Your task to perform on an android device: Go to eBay Image 0: 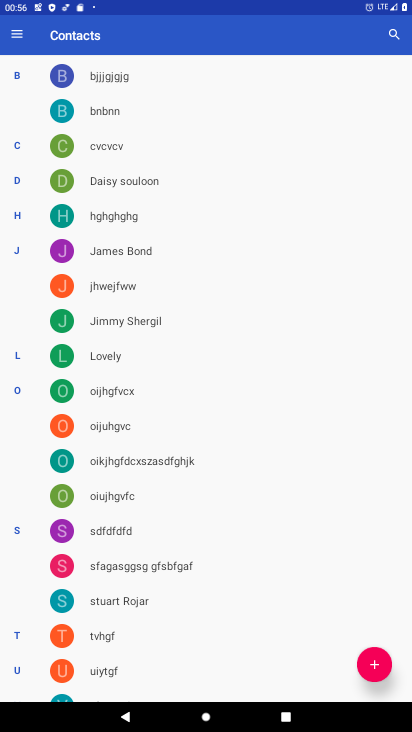
Step 0: press home button
Your task to perform on an android device: Go to eBay Image 1: 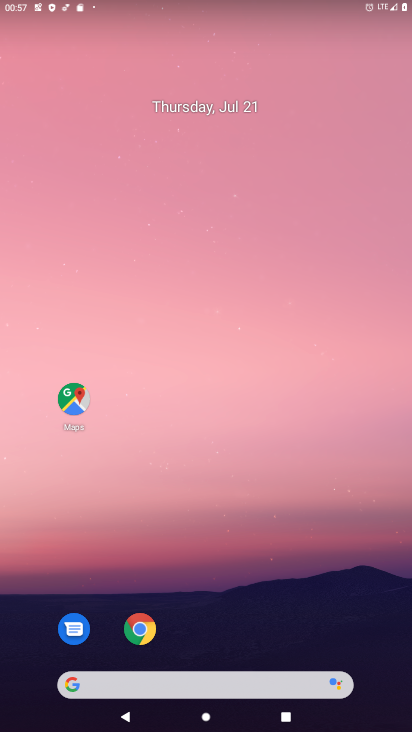
Step 1: drag from (280, 597) to (302, 54)
Your task to perform on an android device: Go to eBay Image 2: 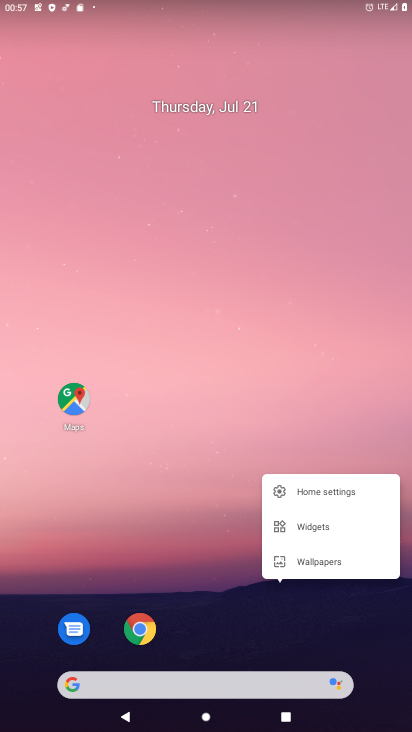
Step 2: click (256, 421)
Your task to perform on an android device: Go to eBay Image 3: 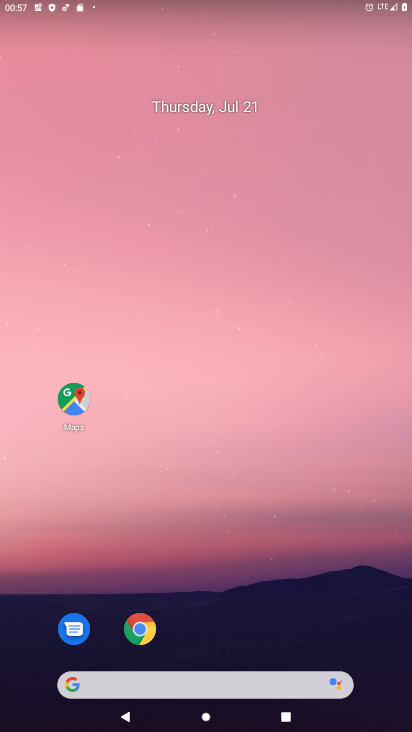
Step 3: click (302, 36)
Your task to perform on an android device: Go to eBay Image 4: 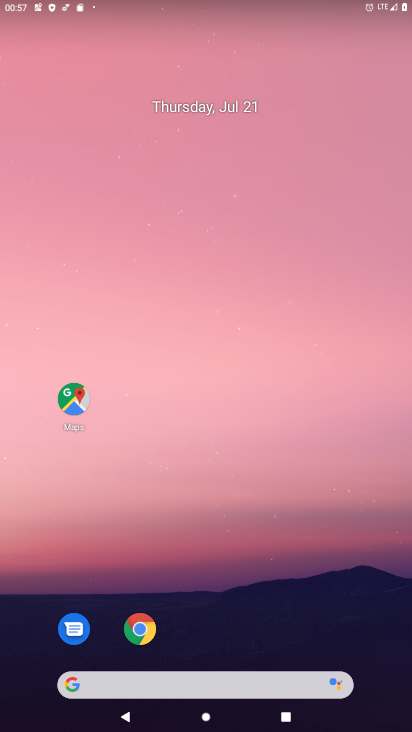
Step 4: drag from (223, 374) to (211, 32)
Your task to perform on an android device: Go to eBay Image 5: 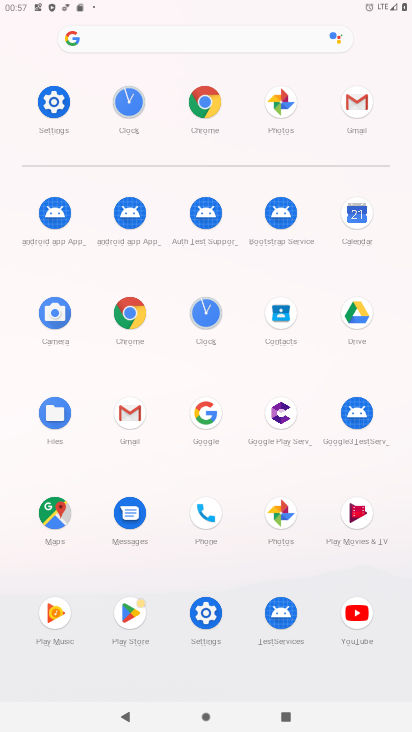
Step 5: click (202, 100)
Your task to perform on an android device: Go to eBay Image 6: 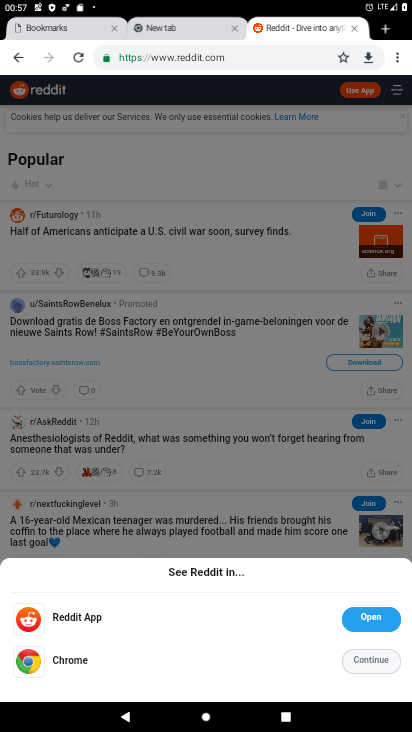
Step 6: click (202, 59)
Your task to perform on an android device: Go to eBay Image 7: 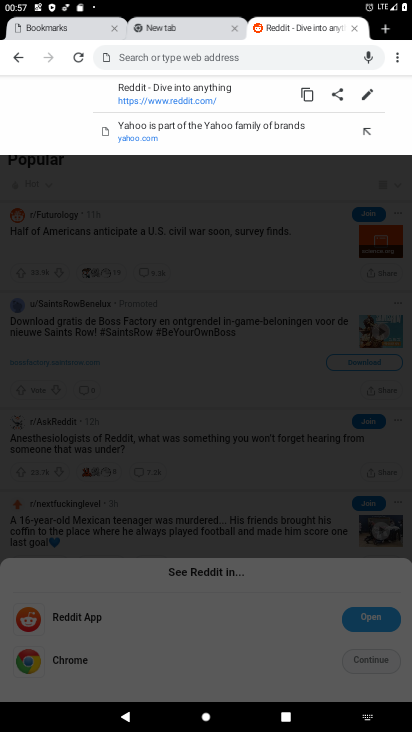
Step 7: type "ebay"
Your task to perform on an android device: Go to eBay Image 8: 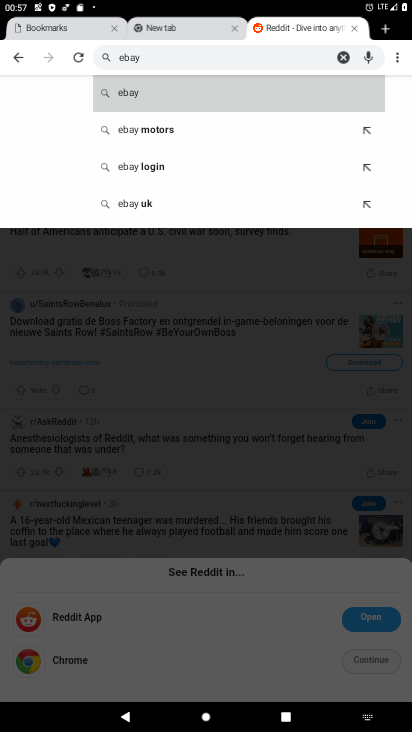
Step 8: click (140, 95)
Your task to perform on an android device: Go to eBay Image 9: 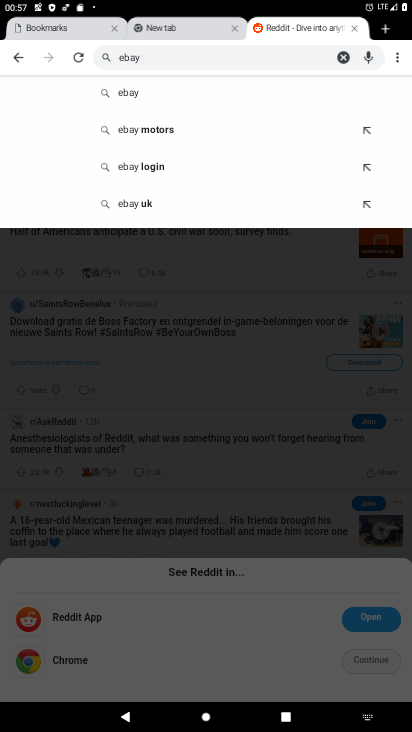
Step 9: click (139, 95)
Your task to perform on an android device: Go to eBay Image 10: 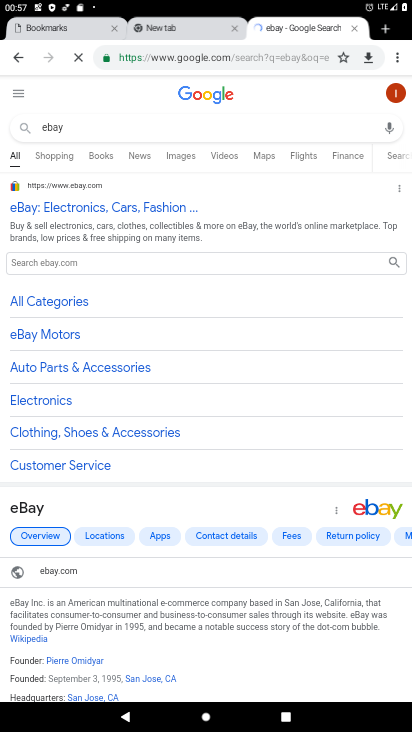
Step 10: click (79, 211)
Your task to perform on an android device: Go to eBay Image 11: 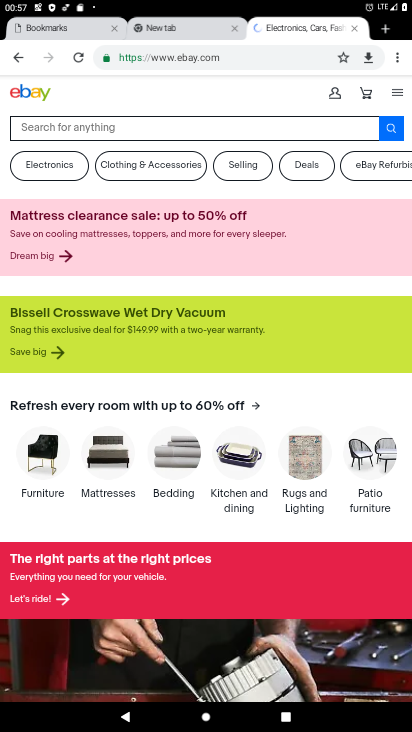
Step 11: task complete